Your task to perform on an android device: Is it going to rain this weekend? Image 0: 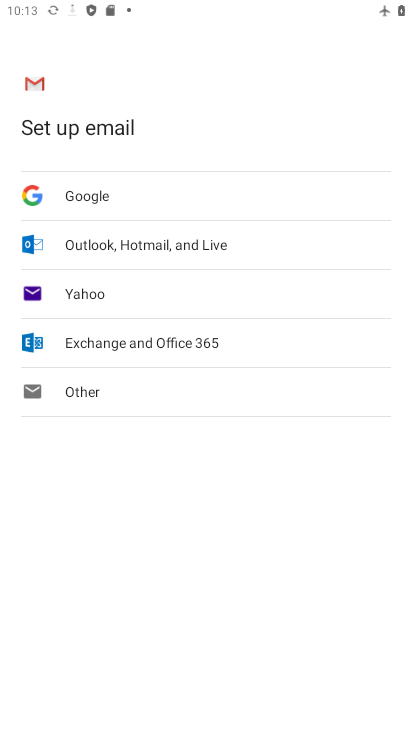
Step 0: press home button
Your task to perform on an android device: Is it going to rain this weekend? Image 1: 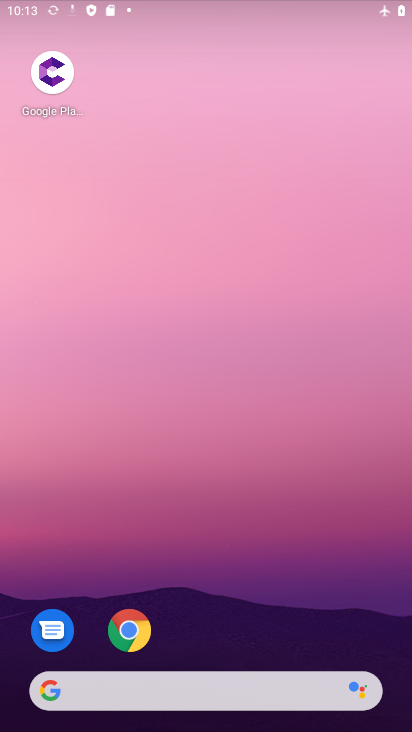
Step 1: drag from (227, 643) to (268, 131)
Your task to perform on an android device: Is it going to rain this weekend? Image 2: 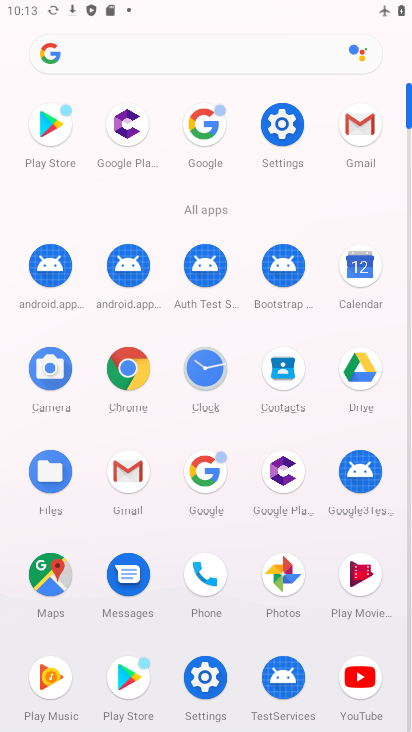
Step 2: click (211, 465)
Your task to perform on an android device: Is it going to rain this weekend? Image 3: 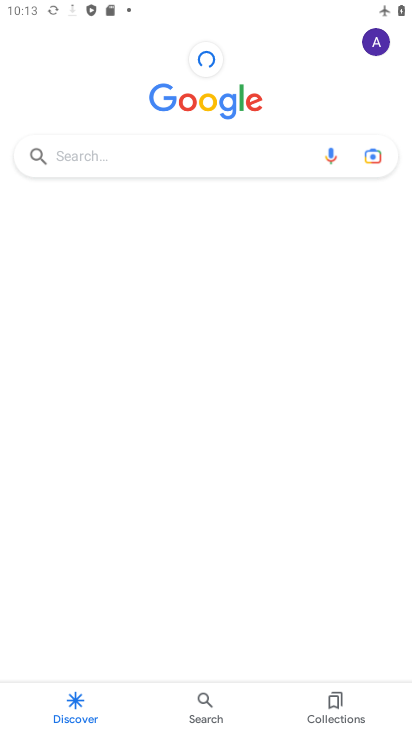
Step 3: click (157, 154)
Your task to perform on an android device: Is it going to rain this weekend? Image 4: 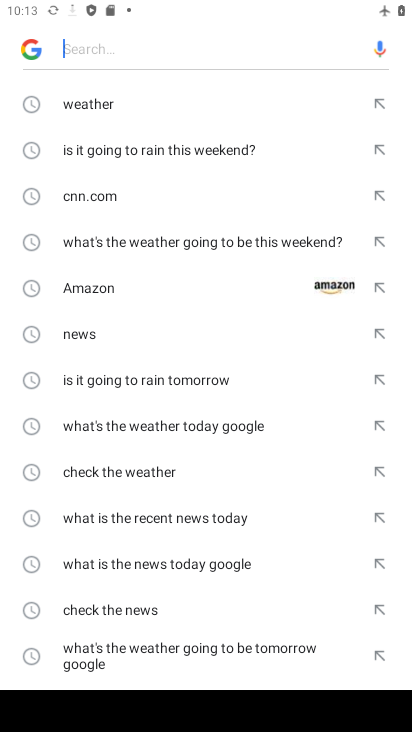
Step 4: click (85, 148)
Your task to perform on an android device: Is it going to rain this weekend? Image 5: 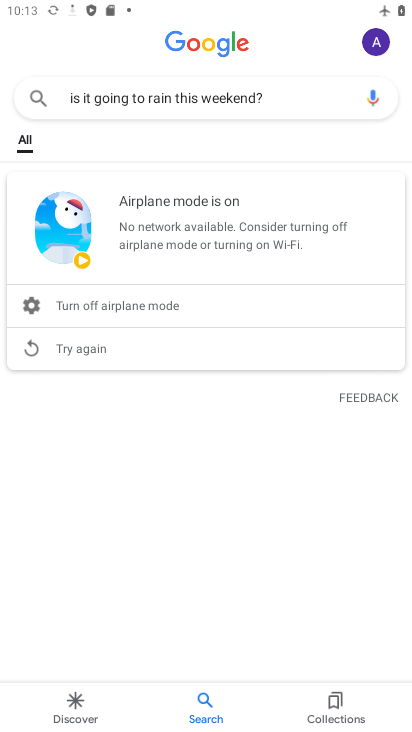
Step 5: task complete